Your task to perform on an android device: Go to display settings Image 0: 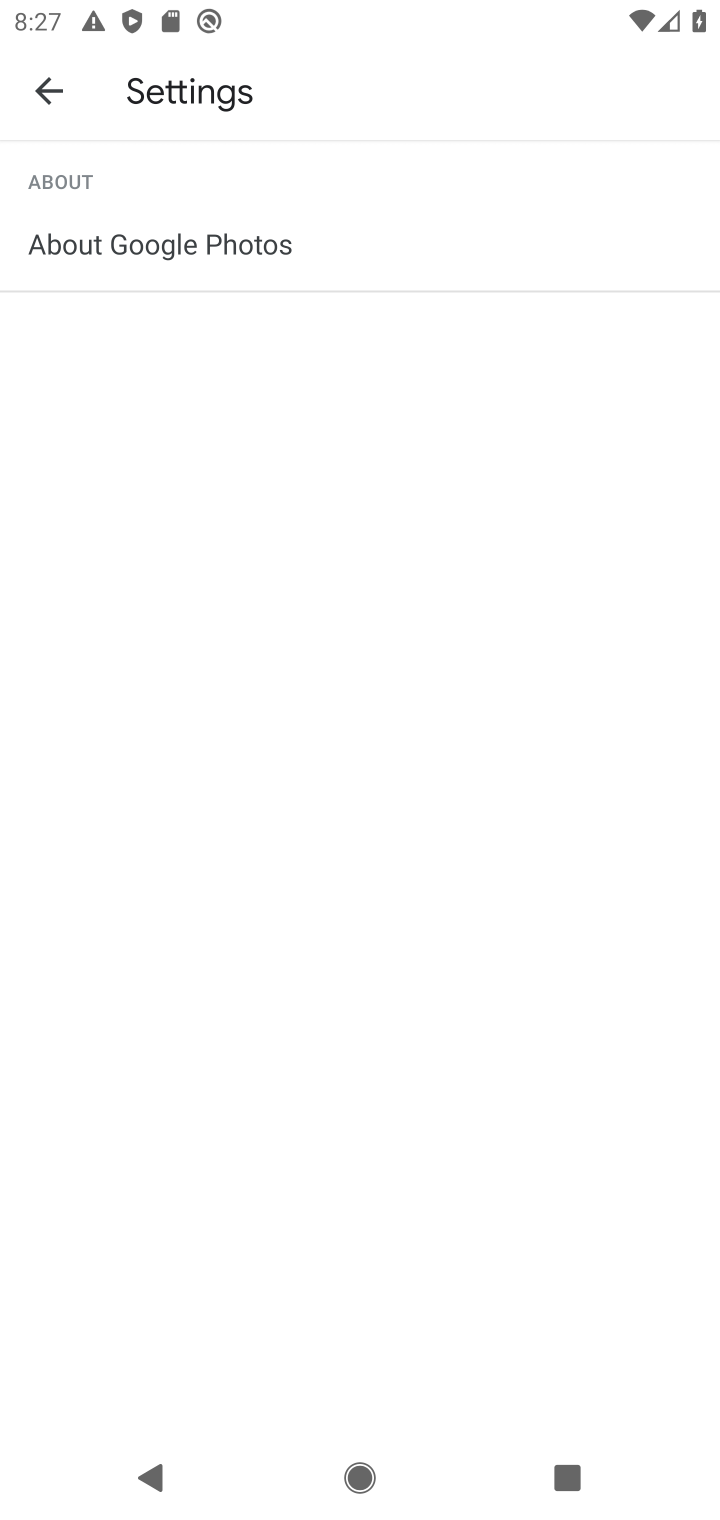
Step 0: press home button
Your task to perform on an android device: Go to display settings Image 1: 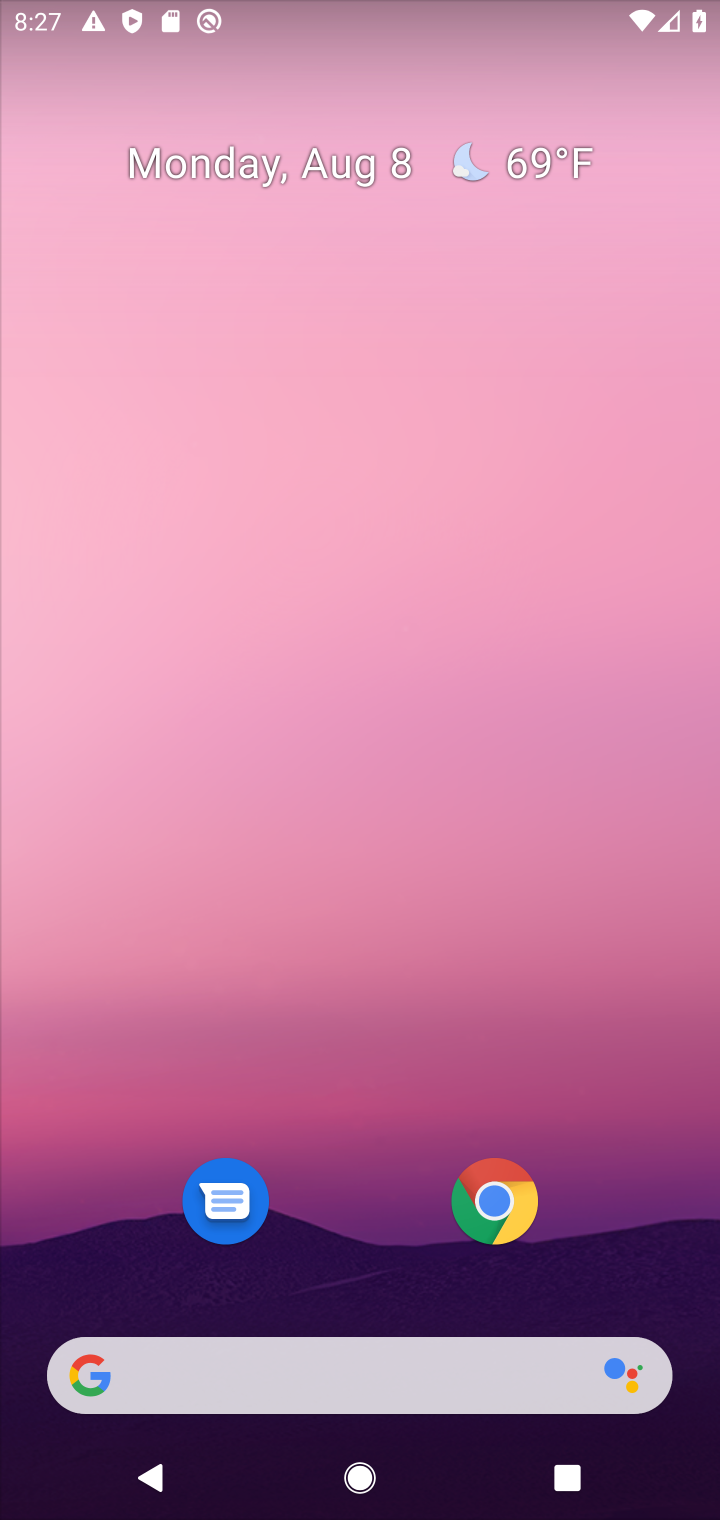
Step 1: drag from (379, 1180) to (449, 316)
Your task to perform on an android device: Go to display settings Image 2: 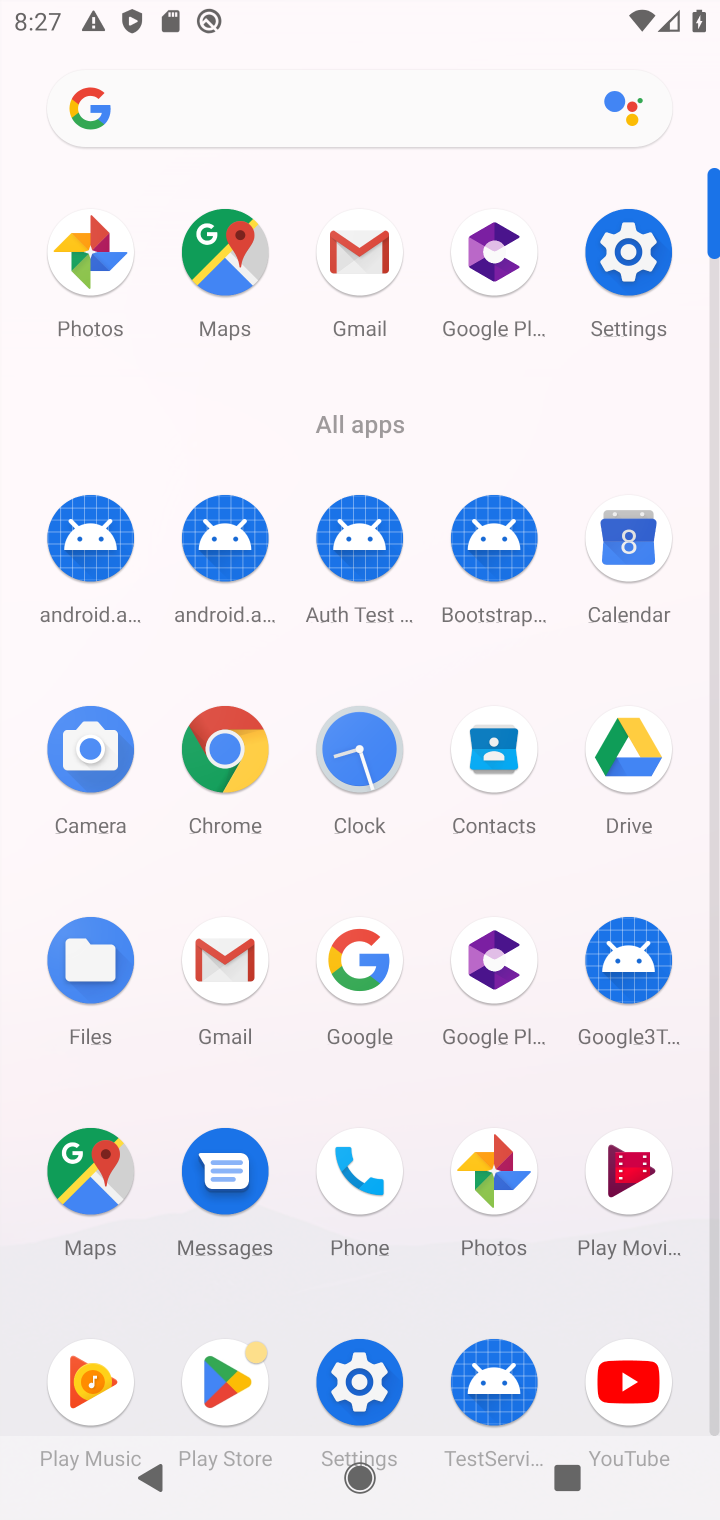
Step 2: click (645, 270)
Your task to perform on an android device: Go to display settings Image 3: 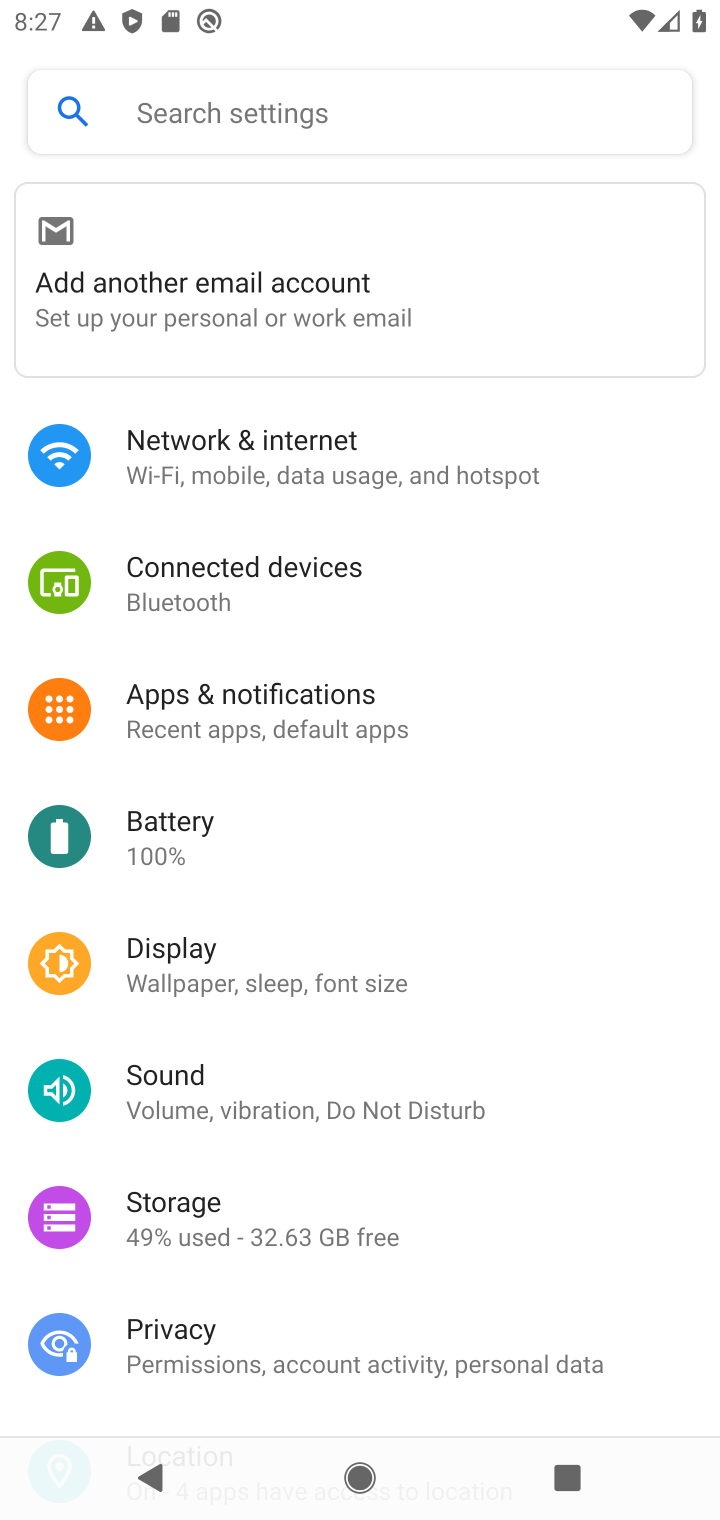
Step 3: drag from (586, 845) to (612, 638)
Your task to perform on an android device: Go to display settings Image 4: 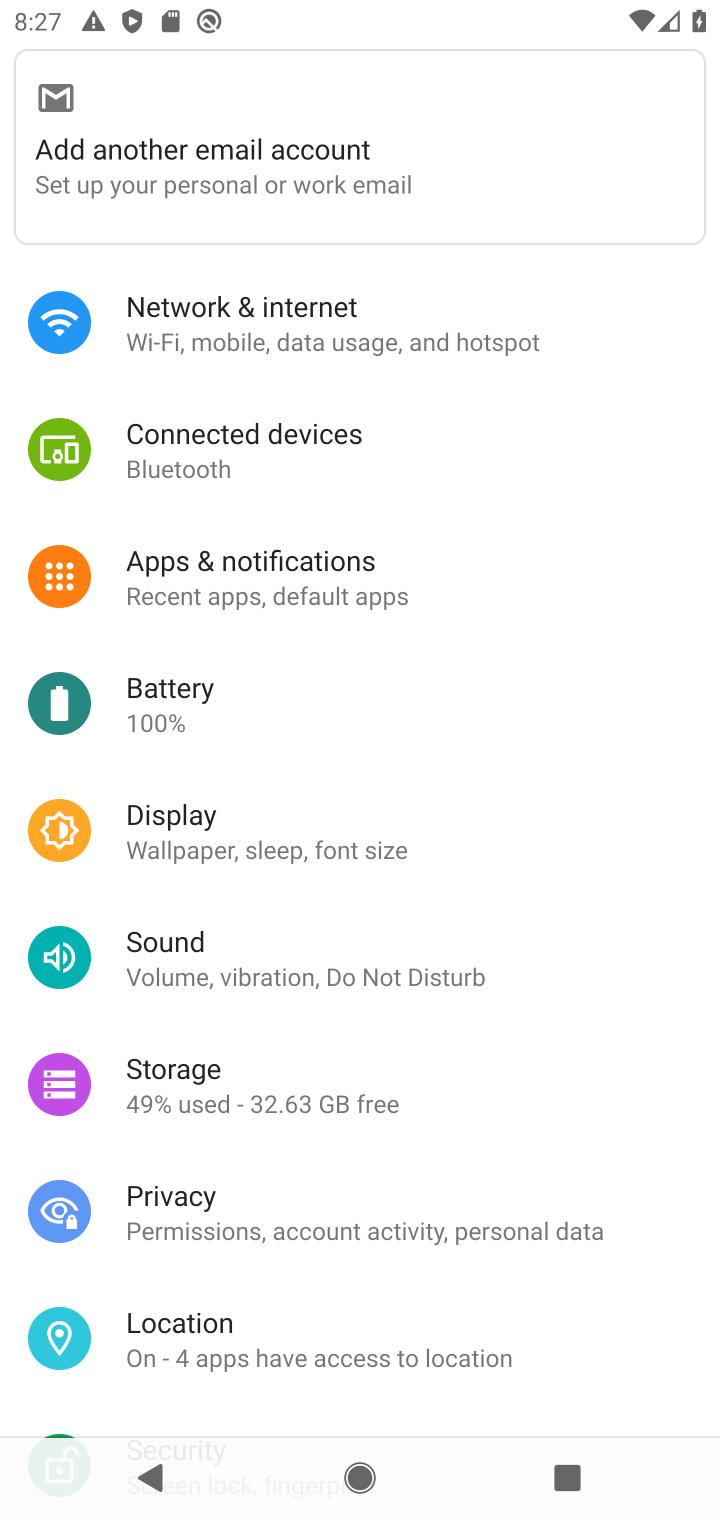
Step 4: drag from (596, 882) to (598, 595)
Your task to perform on an android device: Go to display settings Image 5: 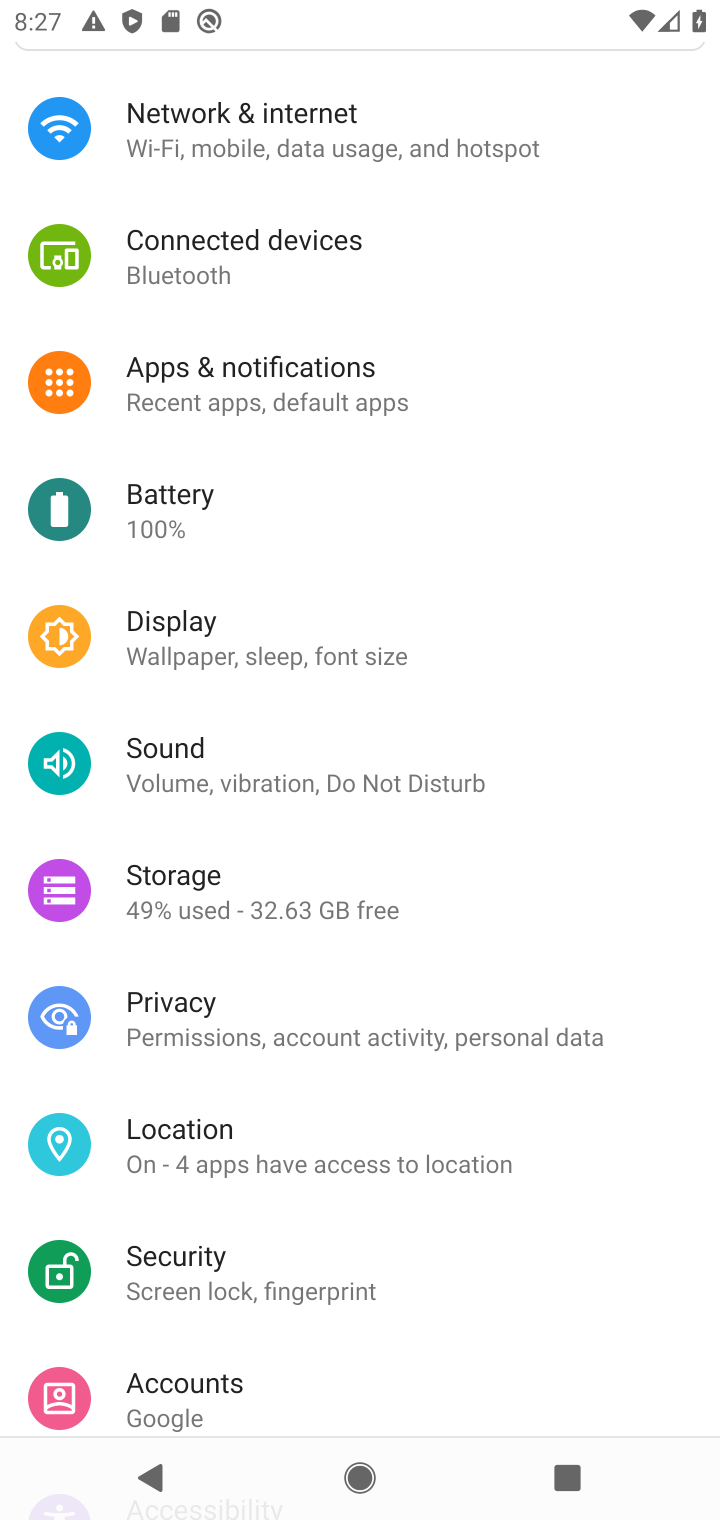
Step 5: drag from (566, 865) to (569, 522)
Your task to perform on an android device: Go to display settings Image 6: 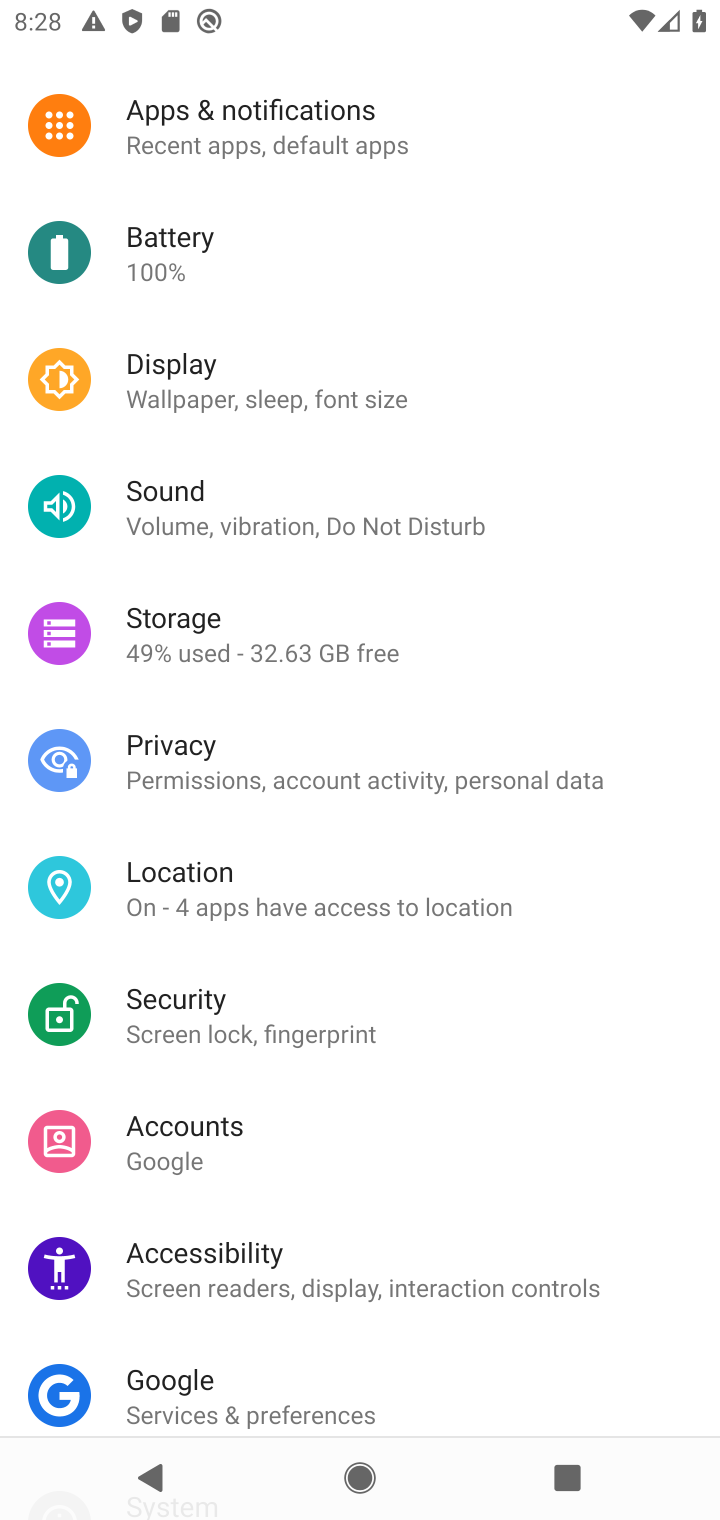
Step 6: drag from (608, 902) to (634, 616)
Your task to perform on an android device: Go to display settings Image 7: 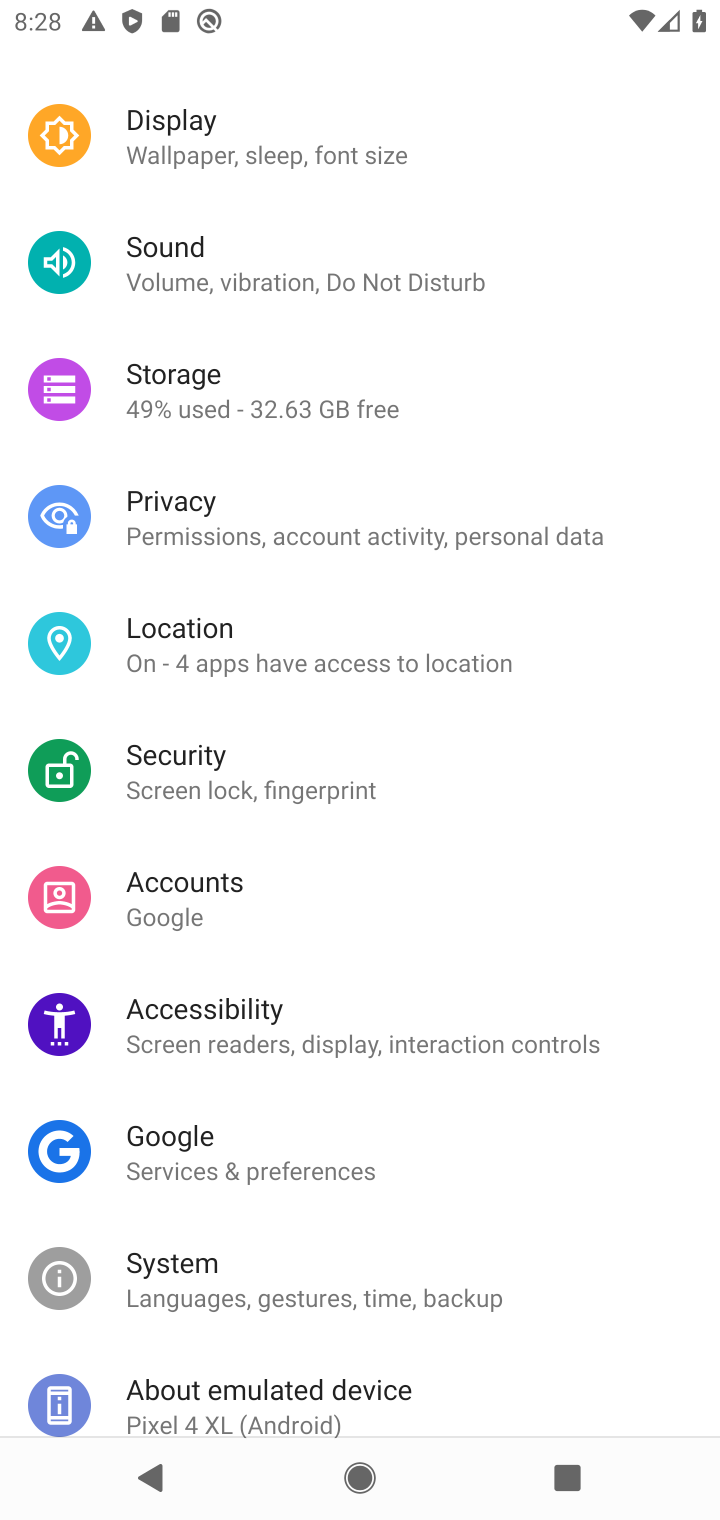
Step 7: drag from (628, 383) to (635, 667)
Your task to perform on an android device: Go to display settings Image 8: 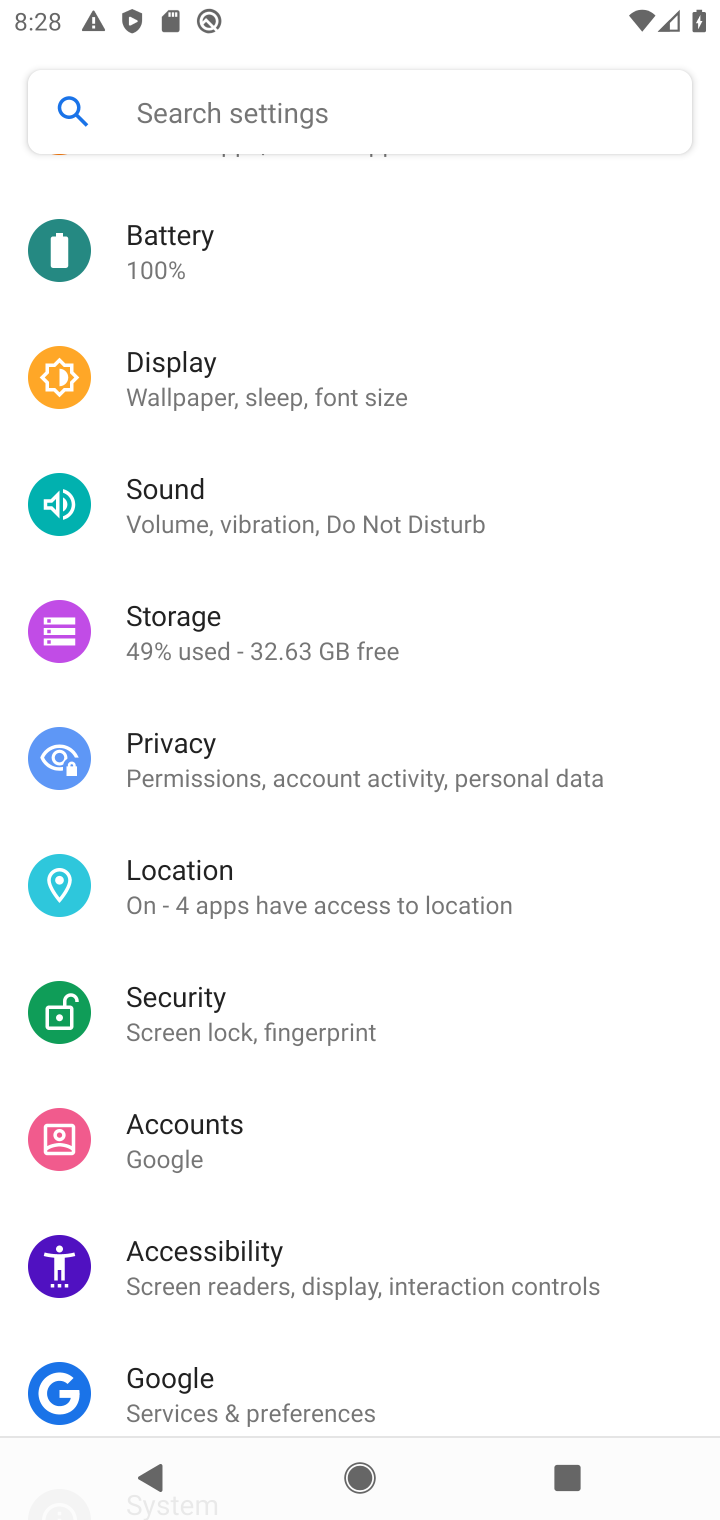
Step 8: drag from (604, 349) to (613, 631)
Your task to perform on an android device: Go to display settings Image 9: 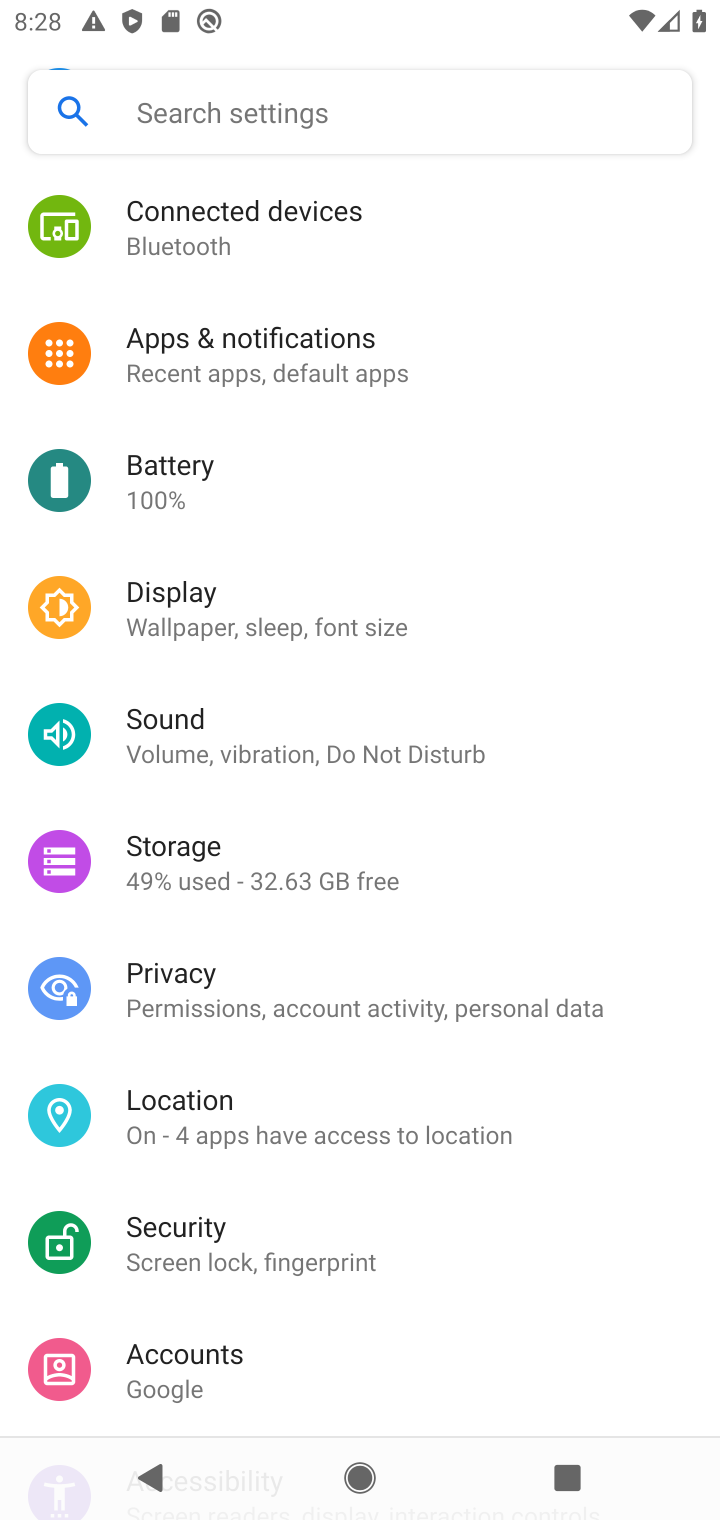
Step 9: drag from (577, 366) to (592, 644)
Your task to perform on an android device: Go to display settings Image 10: 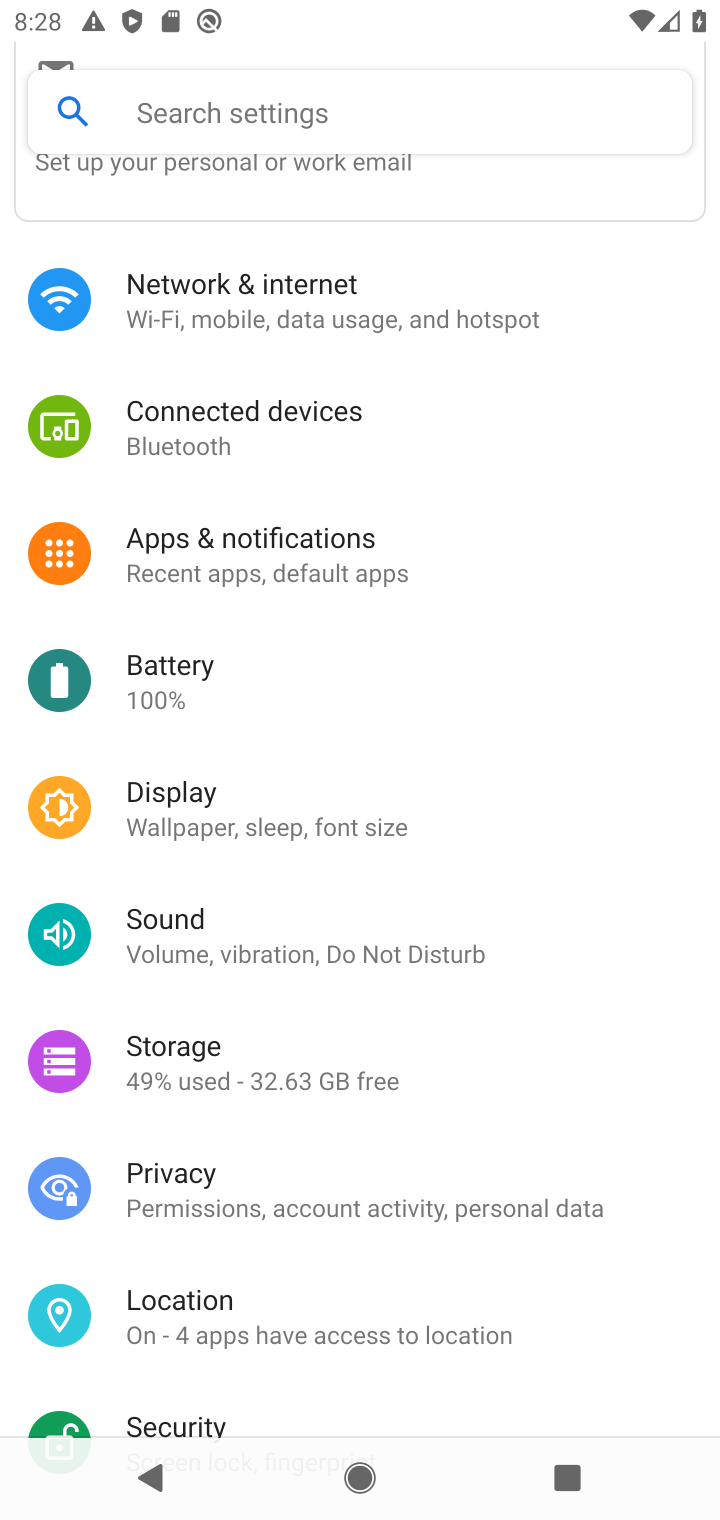
Step 10: click (356, 807)
Your task to perform on an android device: Go to display settings Image 11: 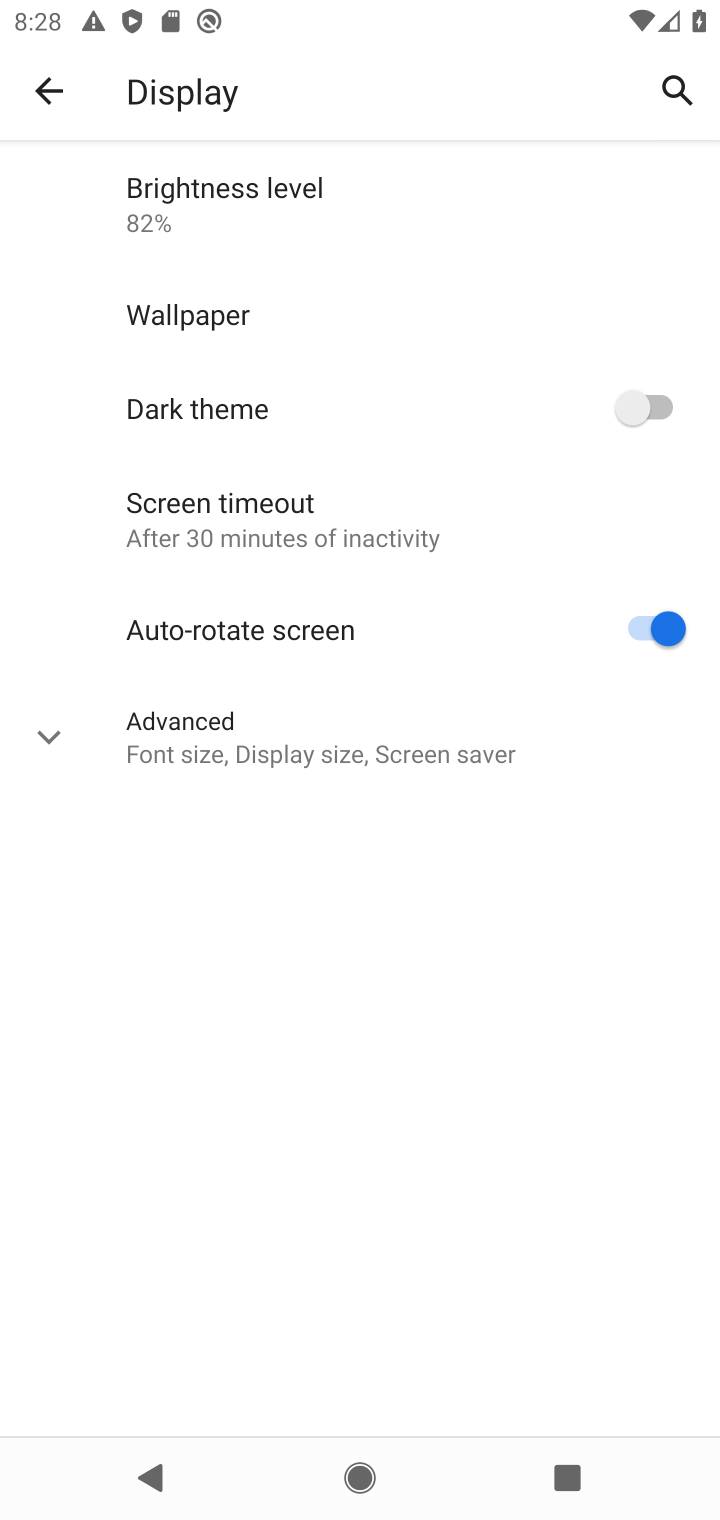
Step 11: task complete